Your task to perform on an android device: add a label to a message in the gmail app Image 0: 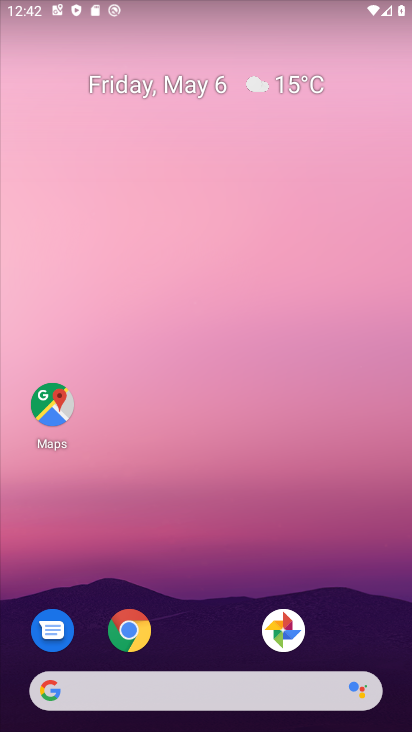
Step 0: drag from (205, 441) to (201, 151)
Your task to perform on an android device: add a label to a message in the gmail app Image 1: 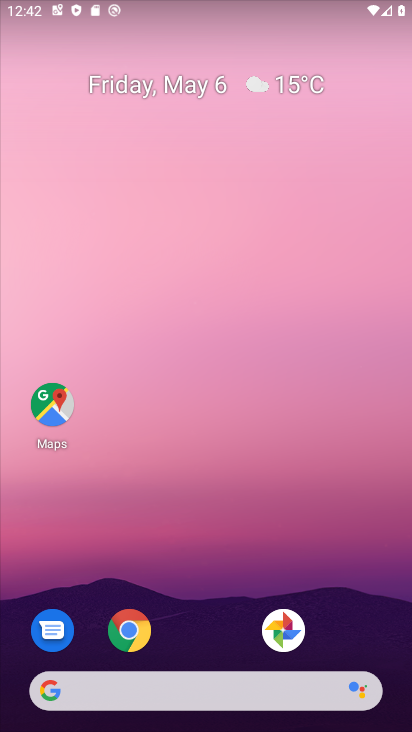
Step 1: drag from (218, 543) to (210, 124)
Your task to perform on an android device: add a label to a message in the gmail app Image 2: 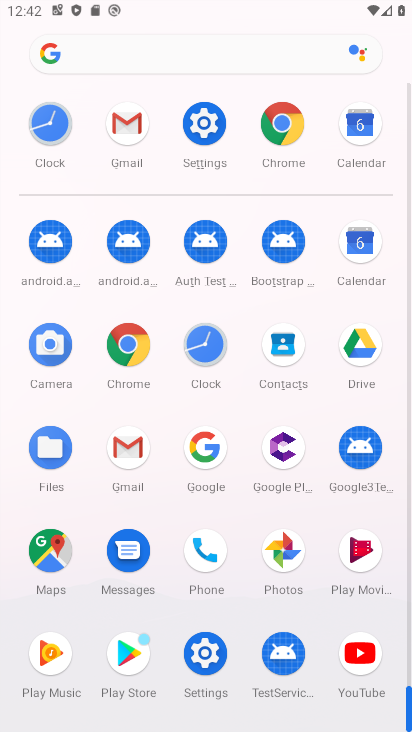
Step 2: click (270, 114)
Your task to perform on an android device: add a label to a message in the gmail app Image 3: 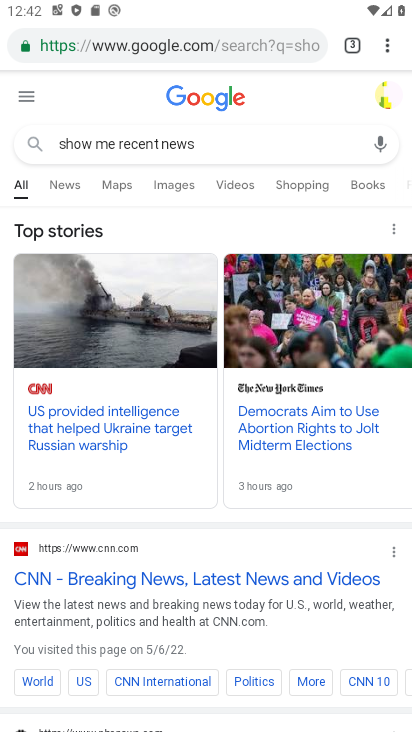
Step 3: press home button
Your task to perform on an android device: add a label to a message in the gmail app Image 4: 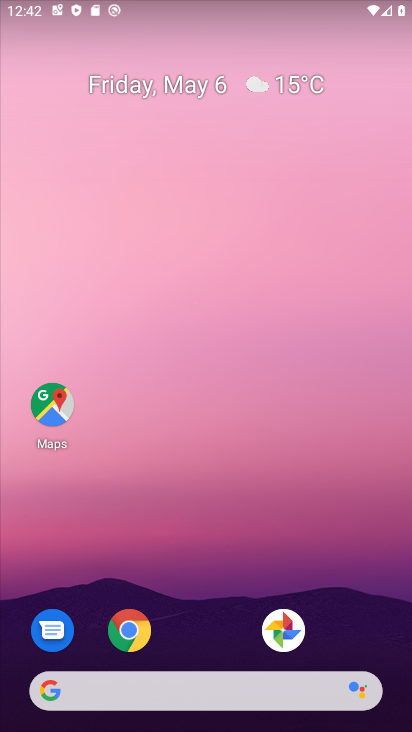
Step 4: drag from (221, 602) to (227, 187)
Your task to perform on an android device: add a label to a message in the gmail app Image 5: 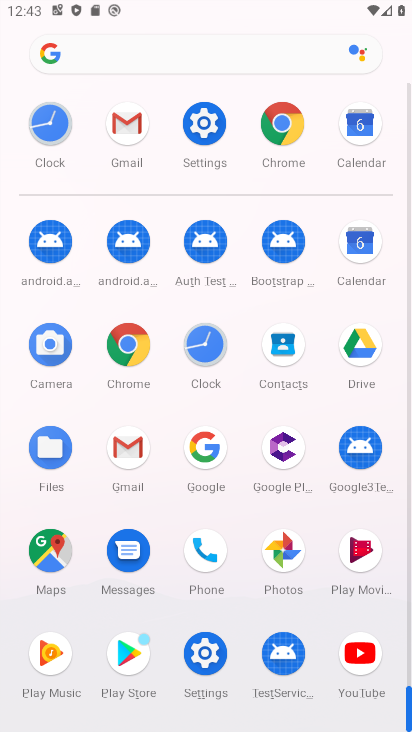
Step 5: click (112, 465)
Your task to perform on an android device: add a label to a message in the gmail app Image 6: 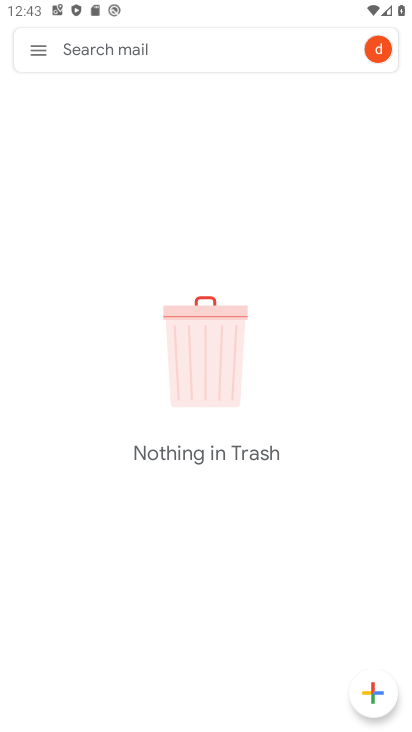
Step 6: click (44, 46)
Your task to perform on an android device: add a label to a message in the gmail app Image 7: 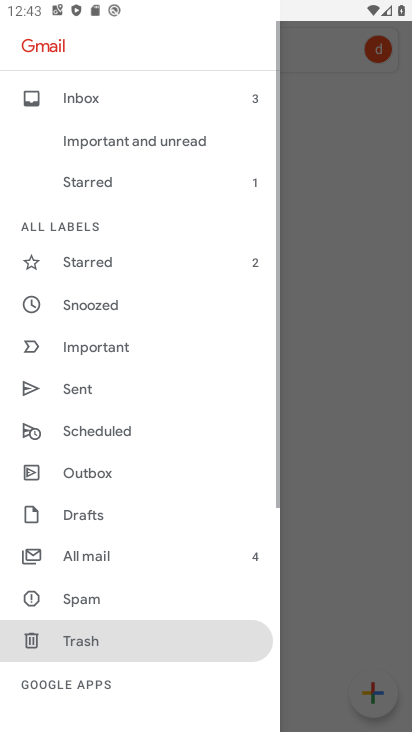
Step 7: click (71, 95)
Your task to perform on an android device: add a label to a message in the gmail app Image 8: 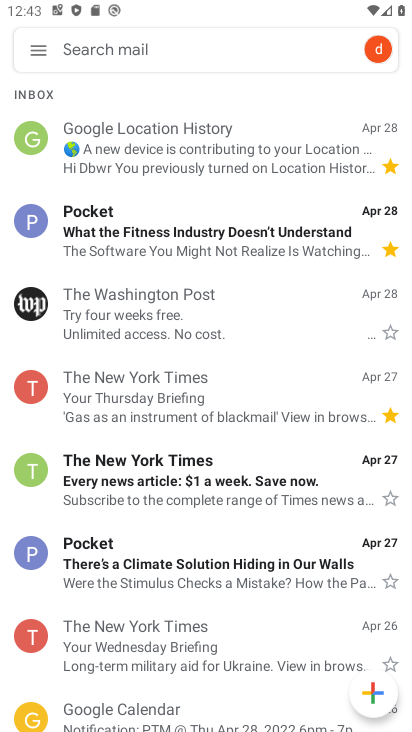
Step 8: click (296, 157)
Your task to perform on an android device: add a label to a message in the gmail app Image 9: 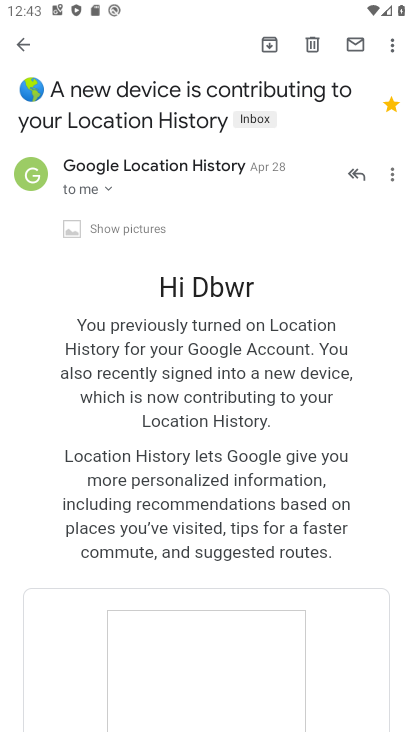
Step 9: click (393, 34)
Your task to perform on an android device: add a label to a message in the gmail app Image 10: 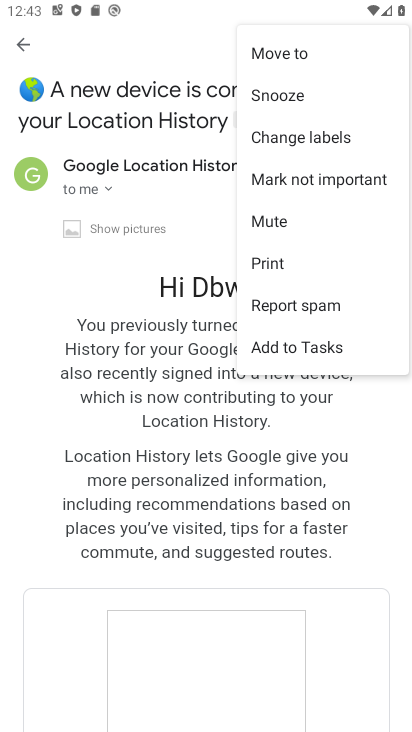
Step 10: click (125, 446)
Your task to perform on an android device: add a label to a message in the gmail app Image 11: 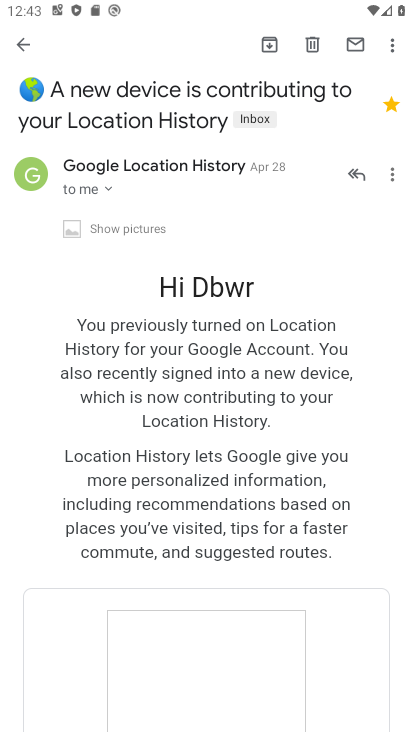
Step 11: click (386, 170)
Your task to perform on an android device: add a label to a message in the gmail app Image 12: 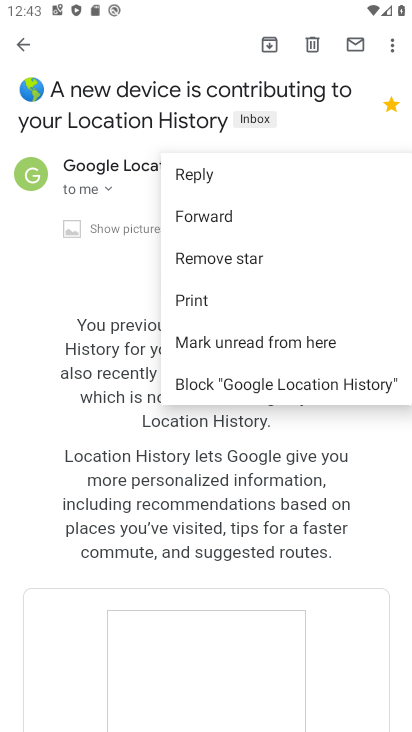
Step 12: click (218, 533)
Your task to perform on an android device: add a label to a message in the gmail app Image 13: 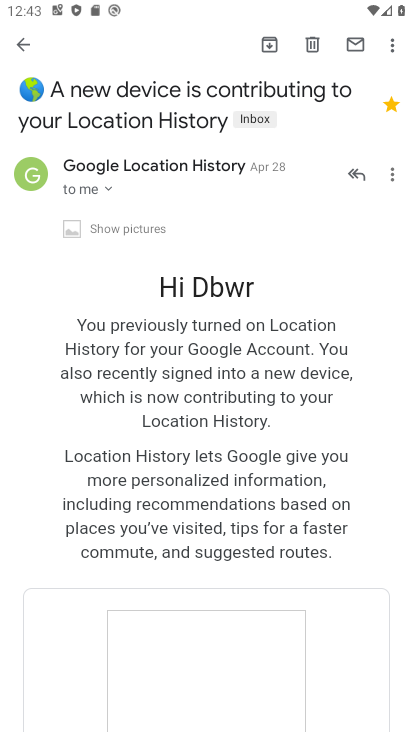
Step 13: drag from (218, 533) to (216, 174)
Your task to perform on an android device: add a label to a message in the gmail app Image 14: 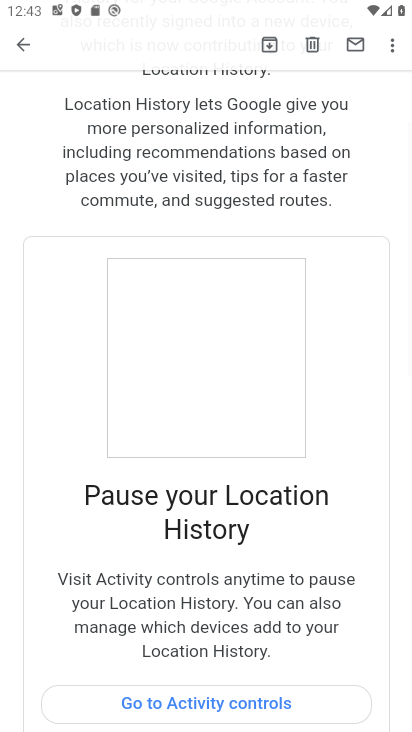
Step 14: drag from (237, 595) to (200, 230)
Your task to perform on an android device: add a label to a message in the gmail app Image 15: 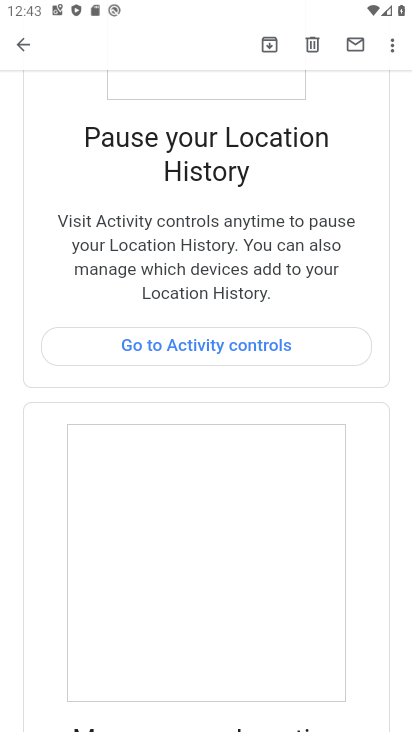
Step 15: drag from (164, 692) to (259, 325)
Your task to perform on an android device: add a label to a message in the gmail app Image 16: 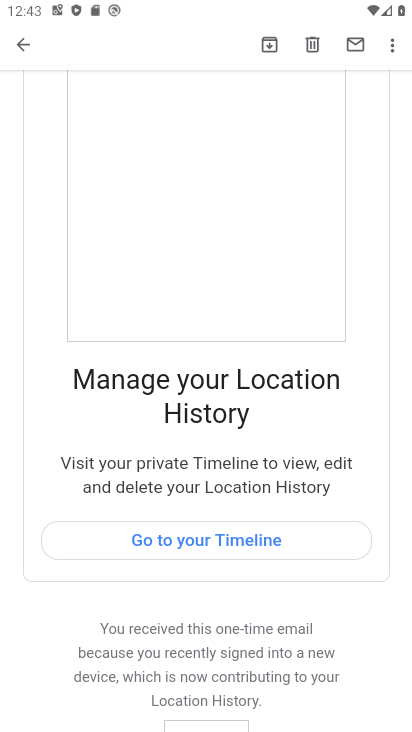
Step 16: drag from (224, 530) to (214, 234)
Your task to perform on an android device: add a label to a message in the gmail app Image 17: 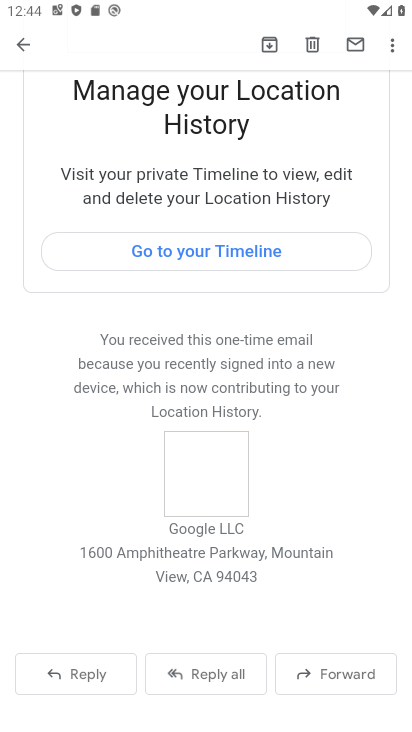
Step 17: click (5, 50)
Your task to perform on an android device: add a label to a message in the gmail app Image 18: 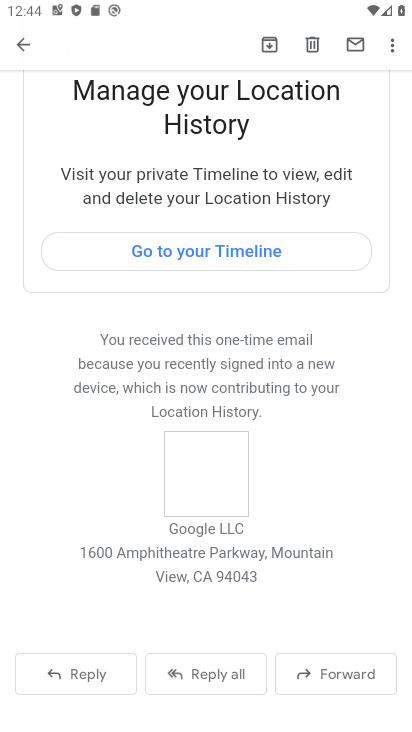
Step 18: click (32, 48)
Your task to perform on an android device: add a label to a message in the gmail app Image 19: 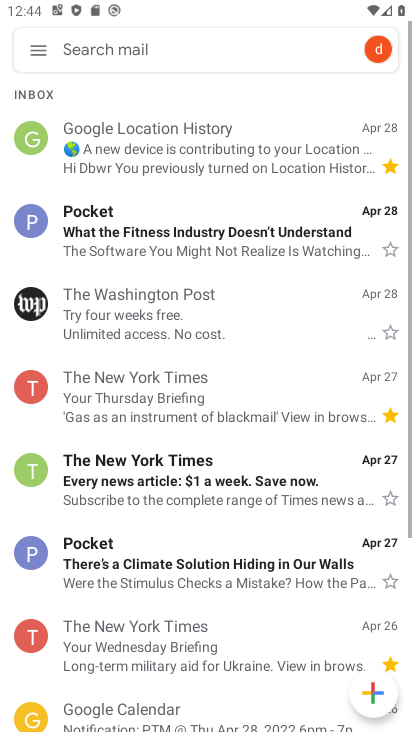
Step 19: click (219, 147)
Your task to perform on an android device: add a label to a message in the gmail app Image 20: 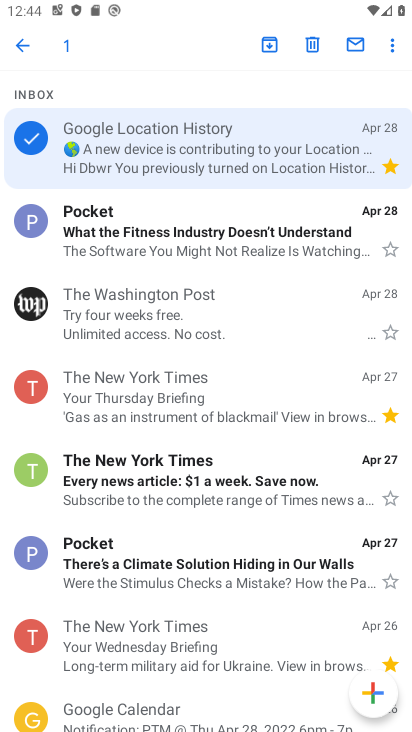
Step 20: click (386, 34)
Your task to perform on an android device: add a label to a message in the gmail app Image 21: 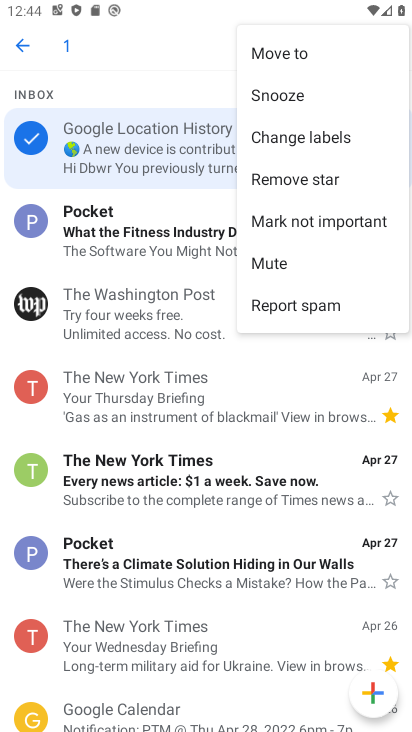
Step 21: click (118, 41)
Your task to perform on an android device: add a label to a message in the gmail app Image 22: 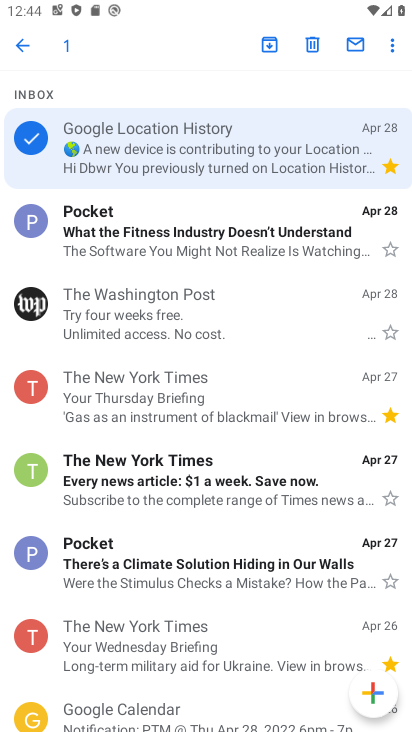
Step 22: click (195, 165)
Your task to perform on an android device: add a label to a message in the gmail app Image 23: 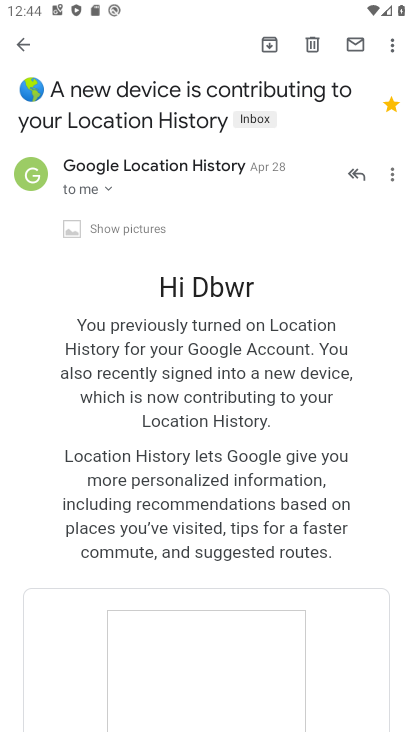
Step 23: click (10, 37)
Your task to perform on an android device: add a label to a message in the gmail app Image 24: 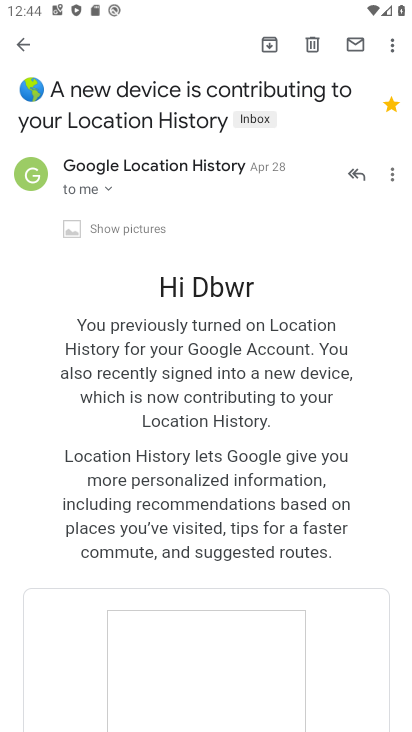
Step 24: click (26, 35)
Your task to perform on an android device: add a label to a message in the gmail app Image 25: 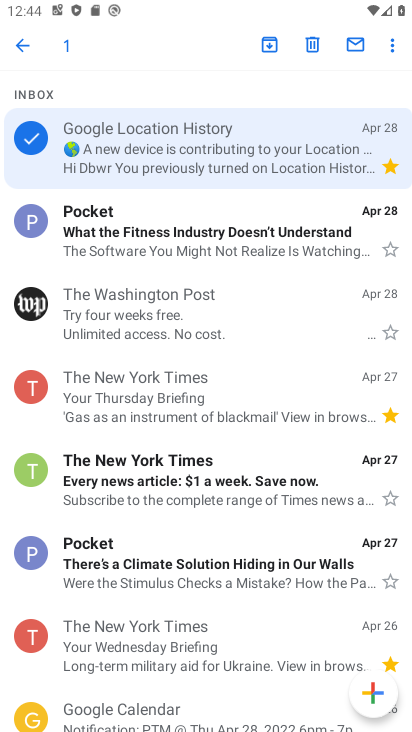
Step 25: click (163, 154)
Your task to perform on an android device: add a label to a message in the gmail app Image 26: 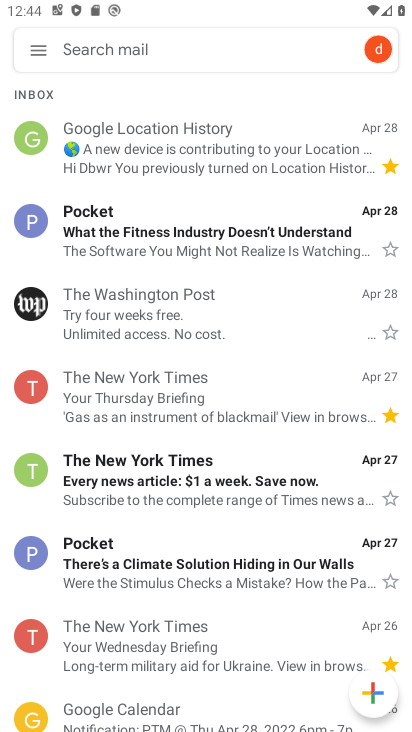
Step 26: click (296, 161)
Your task to perform on an android device: add a label to a message in the gmail app Image 27: 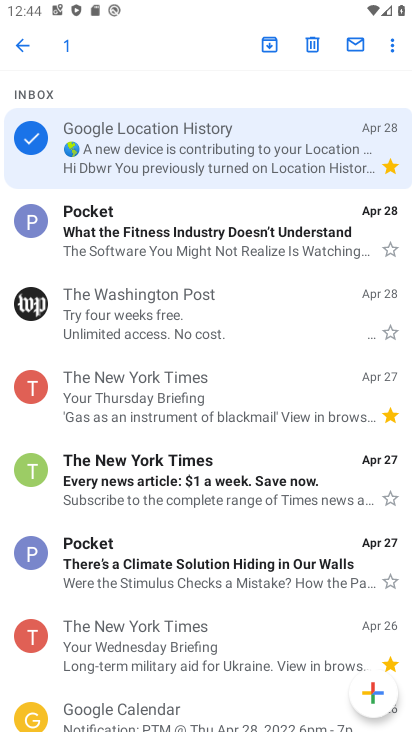
Step 27: click (389, 40)
Your task to perform on an android device: add a label to a message in the gmail app Image 28: 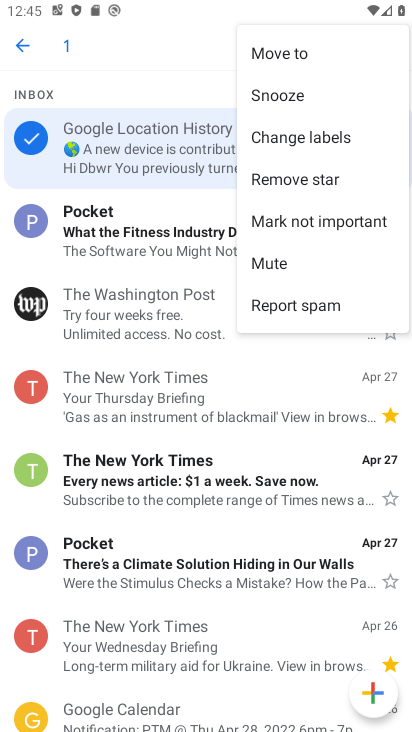
Step 28: click (273, 136)
Your task to perform on an android device: add a label to a message in the gmail app Image 29: 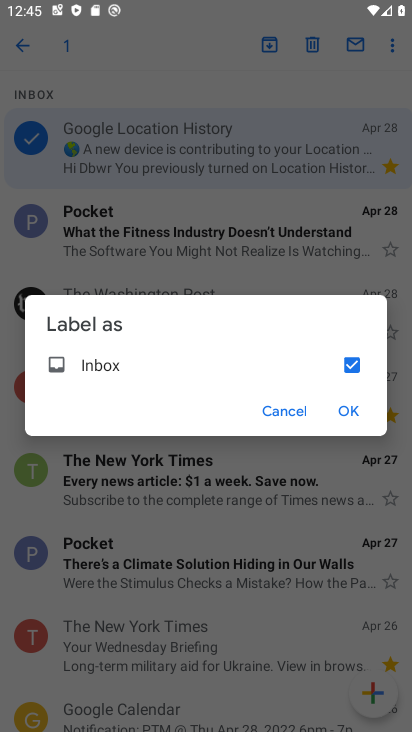
Step 29: click (343, 417)
Your task to perform on an android device: add a label to a message in the gmail app Image 30: 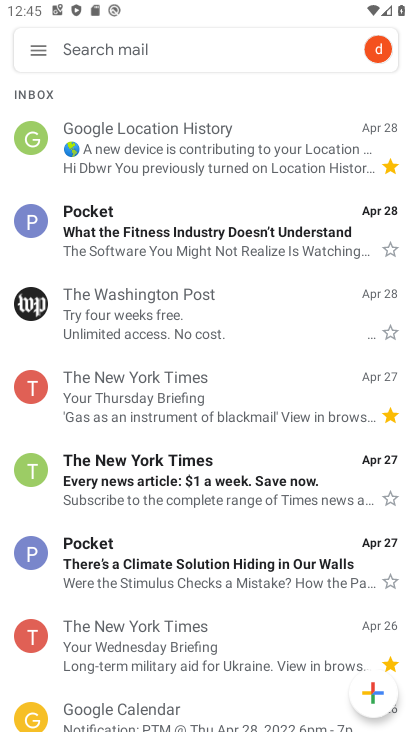
Step 30: task complete